Your task to perform on an android device: Open notification settings Image 0: 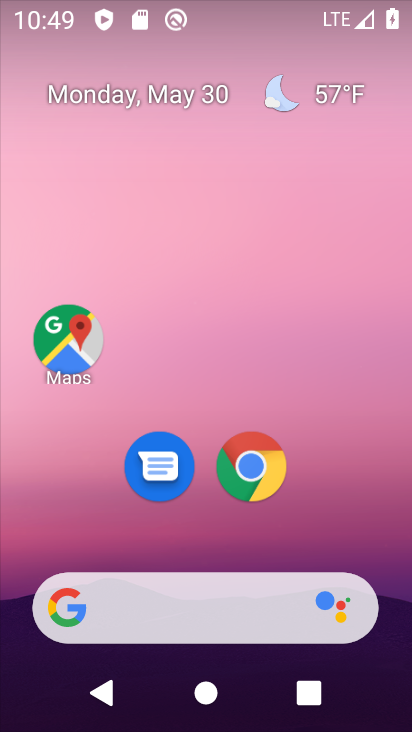
Step 0: press home button
Your task to perform on an android device: Open notification settings Image 1: 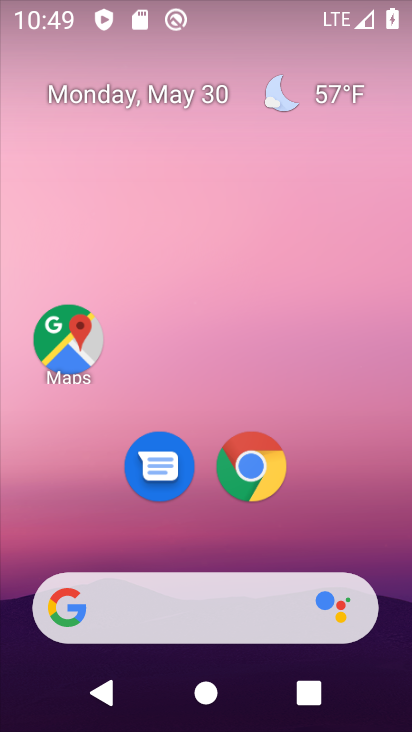
Step 1: drag from (367, 552) to (343, 165)
Your task to perform on an android device: Open notification settings Image 2: 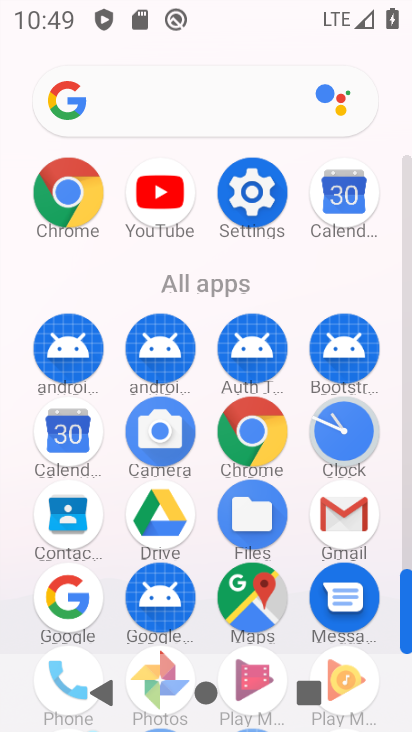
Step 2: click (253, 186)
Your task to perform on an android device: Open notification settings Image 3: 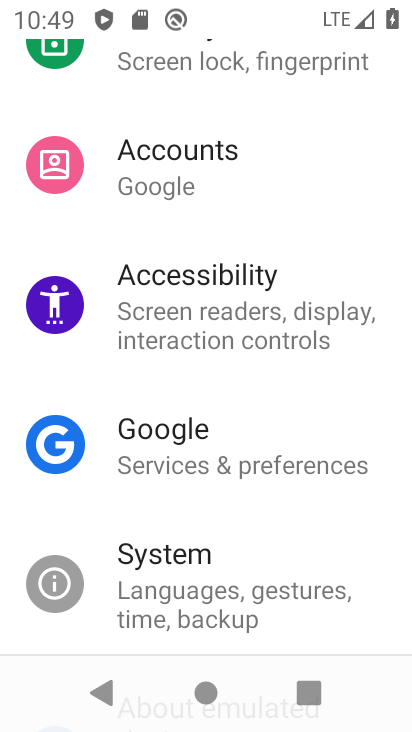
Step 3: drag from (291, 126) to (247, 537)
Your task to perform on an android device: Open notification settings Image 4: 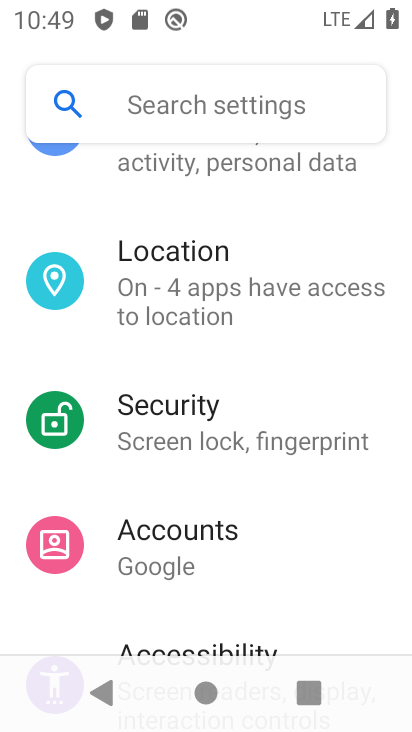
Step 4: drag from (276, 200) to (331, 623)
Your task to perform on an android device: Open notification settings Image 5: 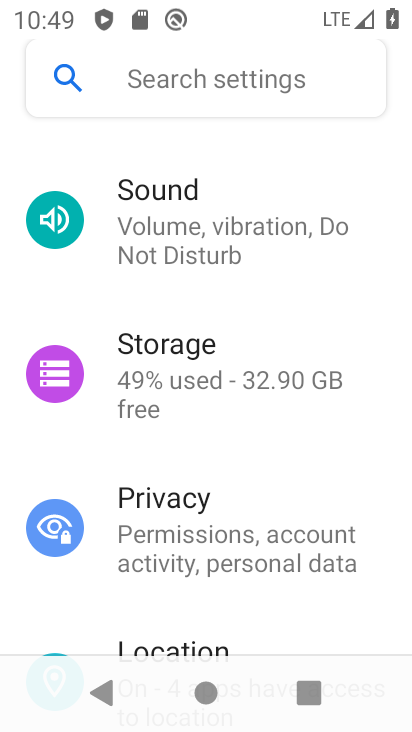
Step 5: drag from (295, 194) to (298, 626)
Your task to perform on an android device: Open notification settings Image 6: 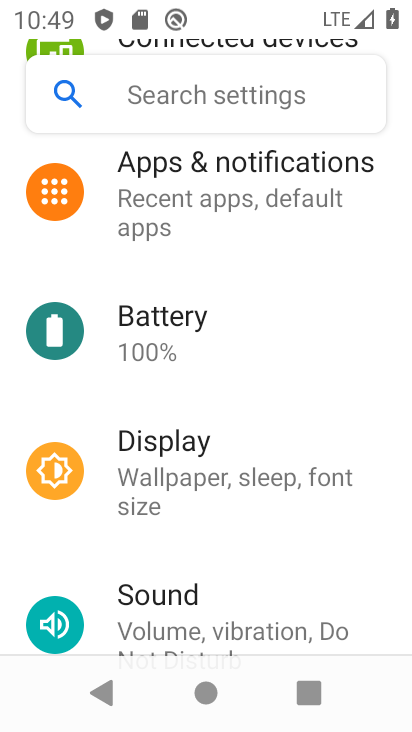
Step 6: click (183, 196)
Your task to perform on an android device: Open notification settings Image 7: 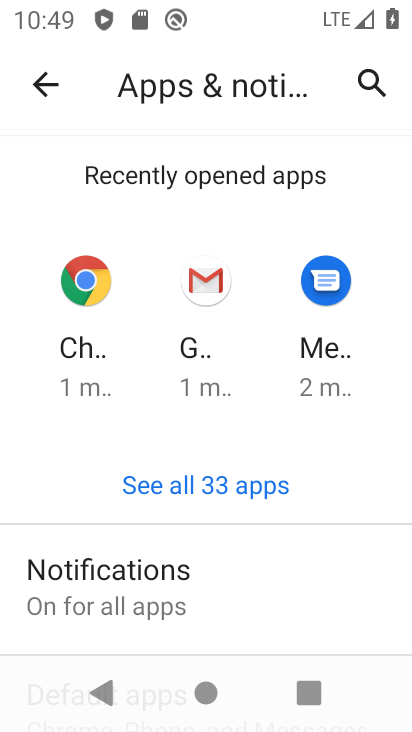
Step 7: task complete